Your task to perform on an android device: show emergency info Image 0: 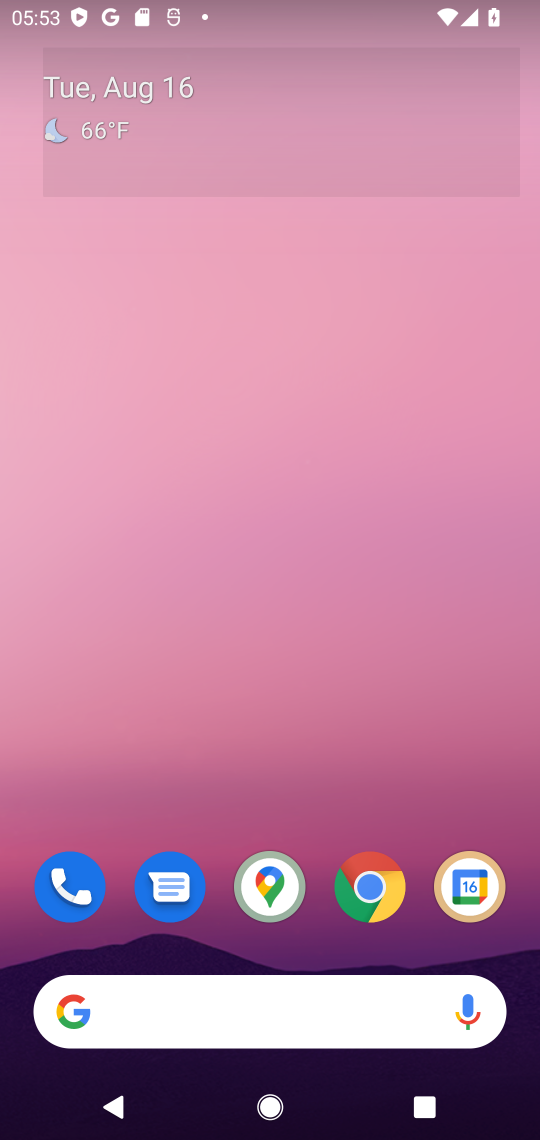
Step 0: drag from (369, 684) to (311, 95)
Your task to perform on an android device: show emergency info Image 1: 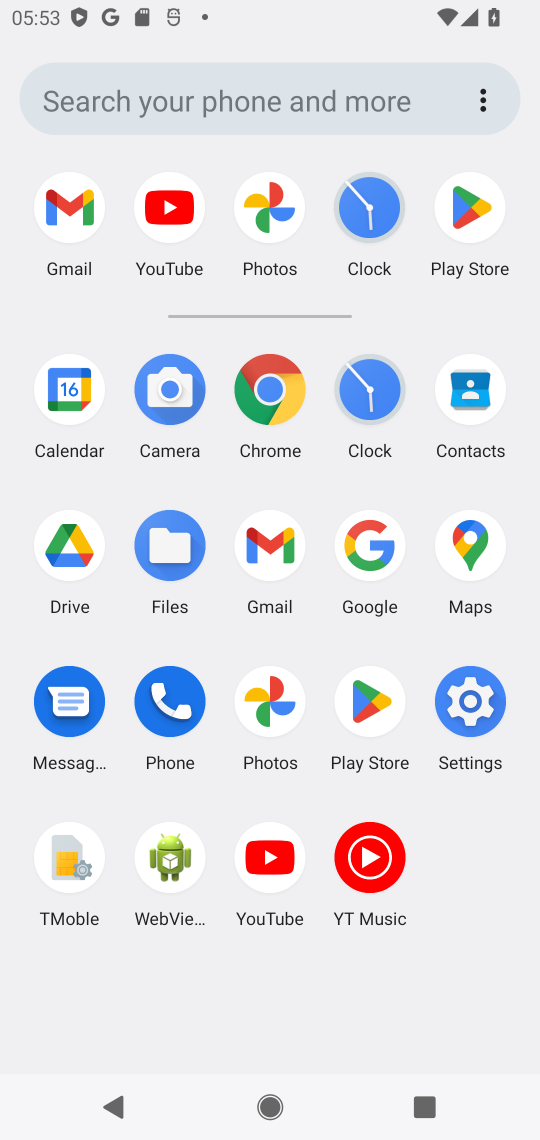
Step 1: click (472, 696)
Your task to perform on an android device: show emergency info Image 2: 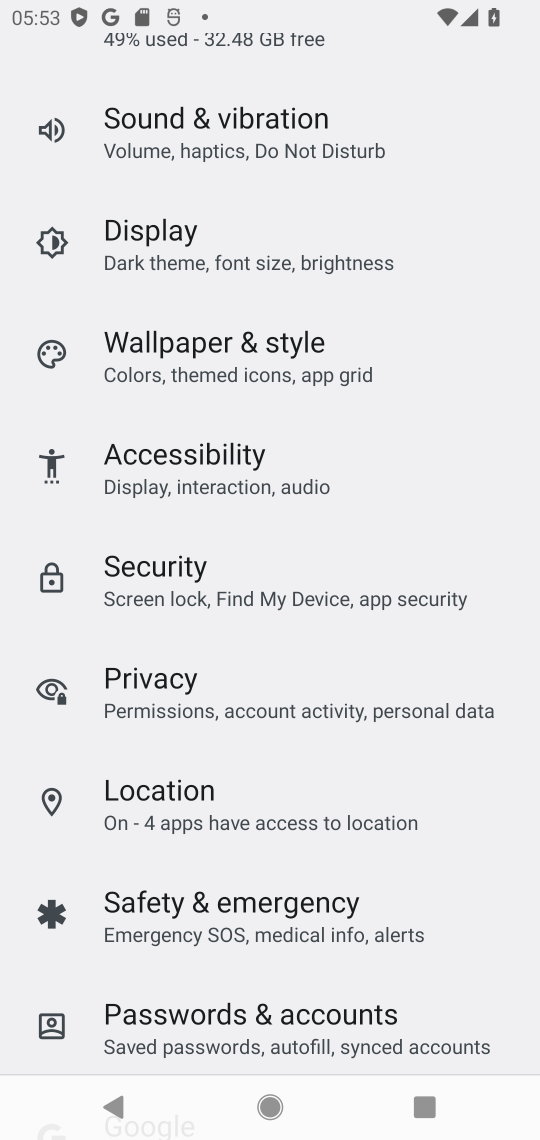
Step 2: drag from (291, 190) to (231, 1096)
Your task to perform on an android device: show emergency info Image 3: 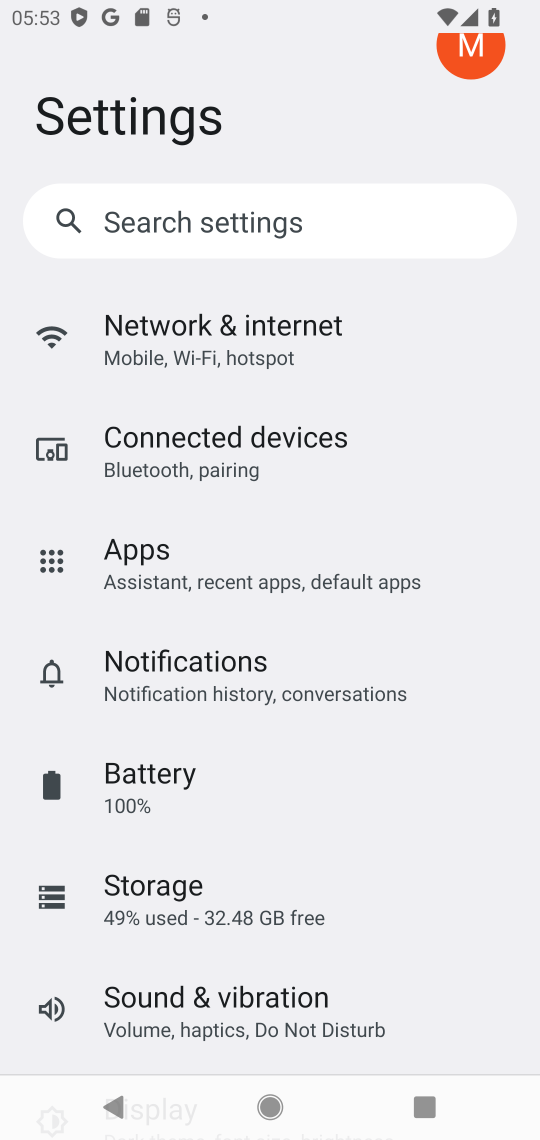
Step 3: drag from (312, 751) to (380, 32)
Your task to perform on an android device: show emergency info Image 4: 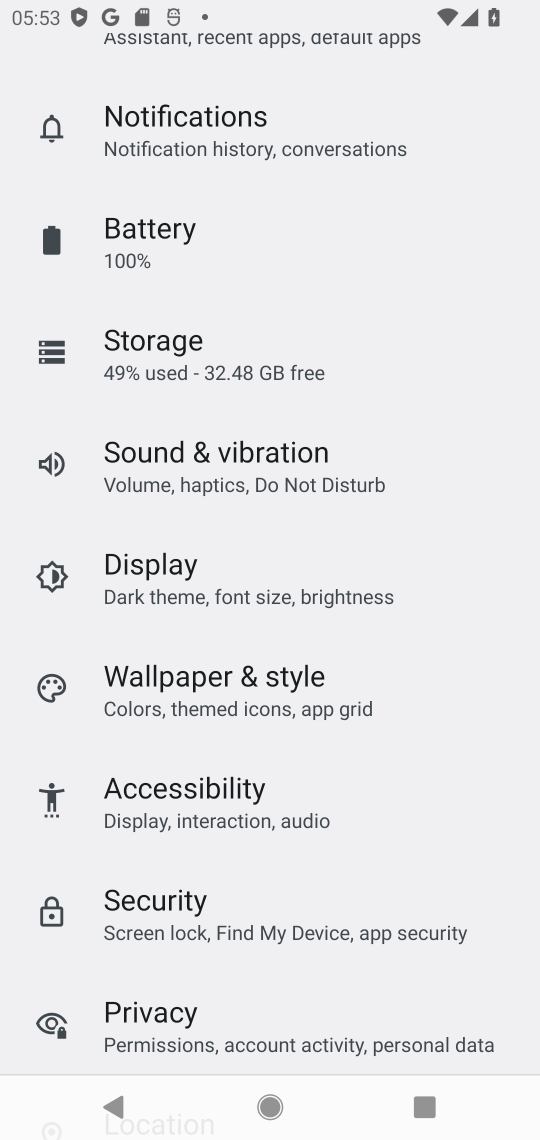
Step 4: drag from (253, 973) to (350, 37)
Your task to perform on an android device: show emergency info Image 5: 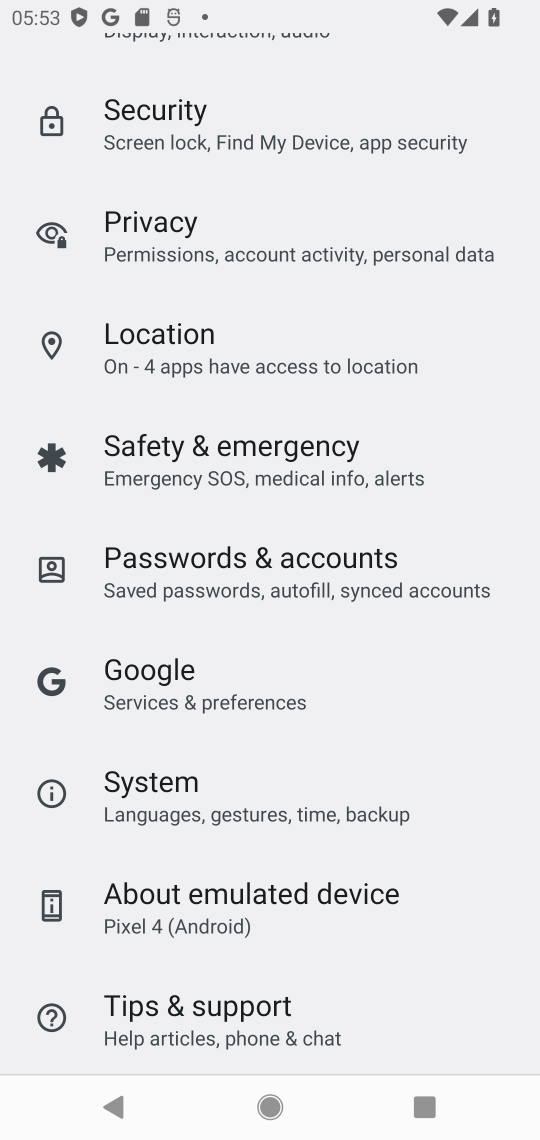
Step 5: click (251, 474)
Your task to perform on an android device: show emergency info Image 6: 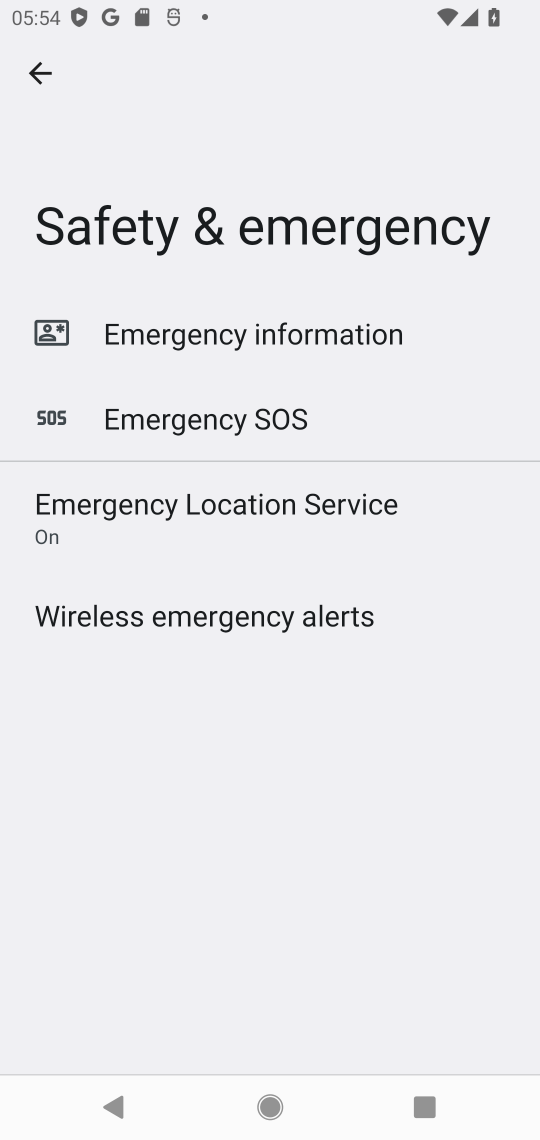
Step 6: click (262, 324)
Your task to perform on an android device: show emergency info Image 7: 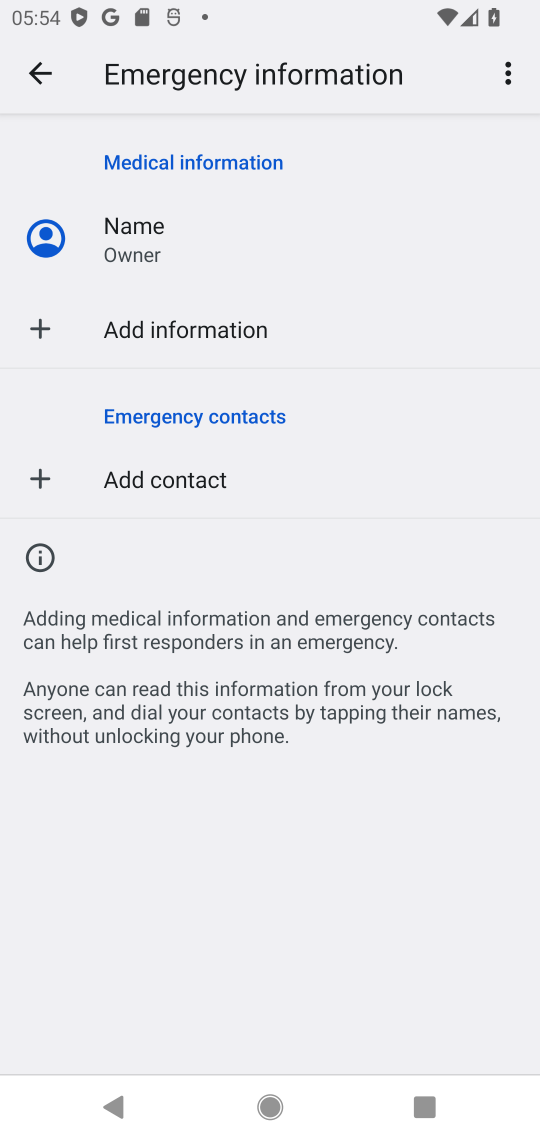
Step 7: task complete